Your task to perform on an android device: turn off smart reply in the gmail app Image 0: 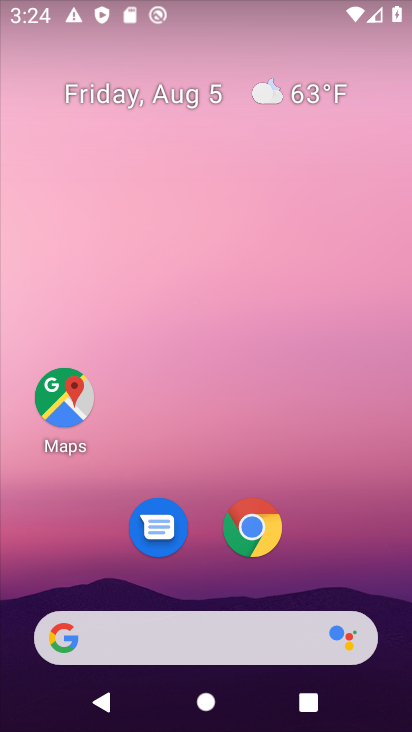
Step 0: drag from (213, 595) to (216, 172)
Your task to perform on an android device: turn off smart reply in the gmail app Image 1: 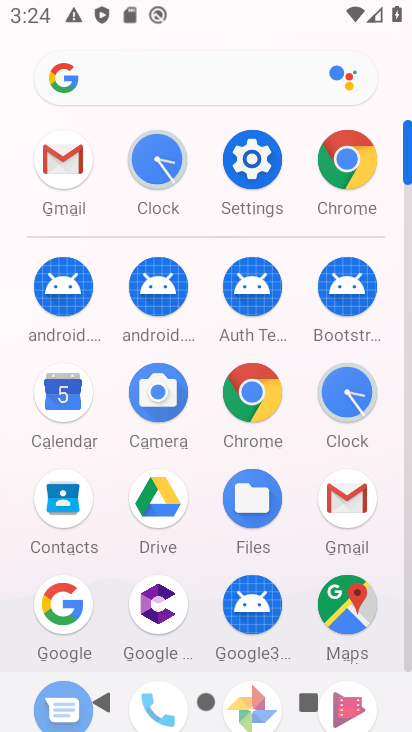
Step 1: click (343, 504)
Your task to perform on an android device: turn off smart reply in the gmail app Image 2: 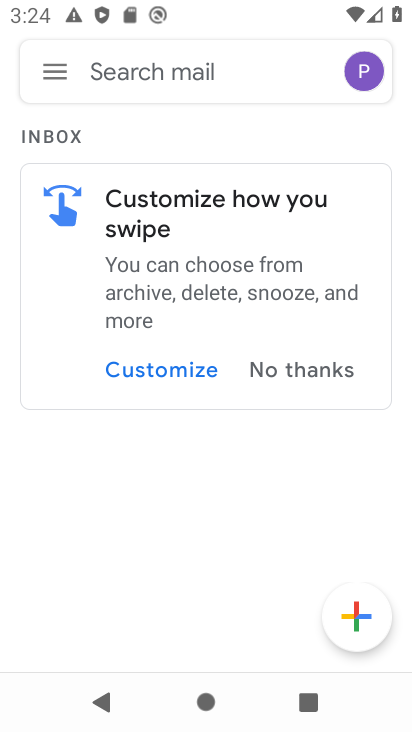
Step 2: click (58, 74)
Your task to perform on an android device: turn off smart reply in the gmail app Image 3: 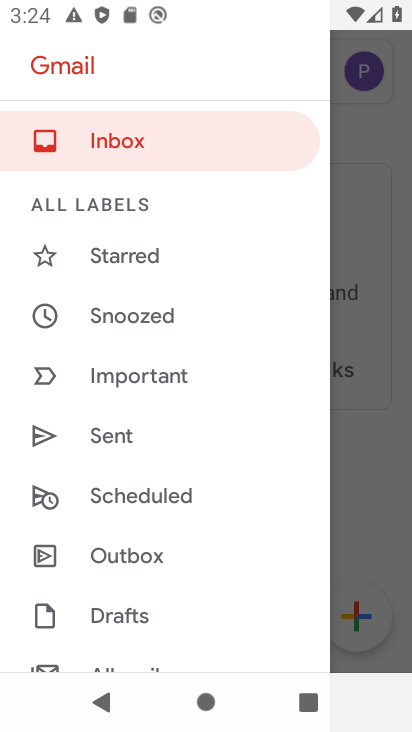
Step 3: drag from (166, 586) to (140, 236)
Your task to perform on an android device: turn off smart reply in the gmail app Image 4: 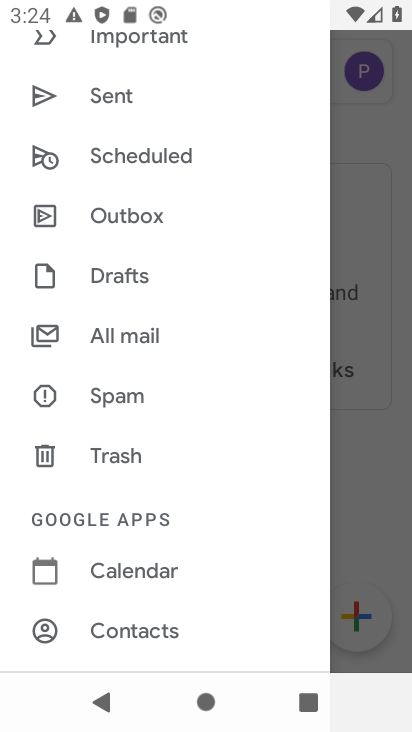
Step 4: drag from (170, 540) to (155, 328)
Your task to perform on an android device: turn off smart reply in the gmail app Image 5: 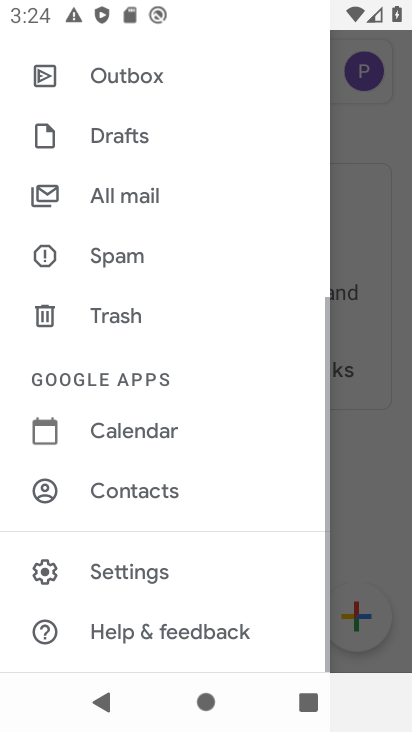
Step 5: click (140, 571)
Your task to perform on an android device: turn off smart reply in the gmail app Image 6: 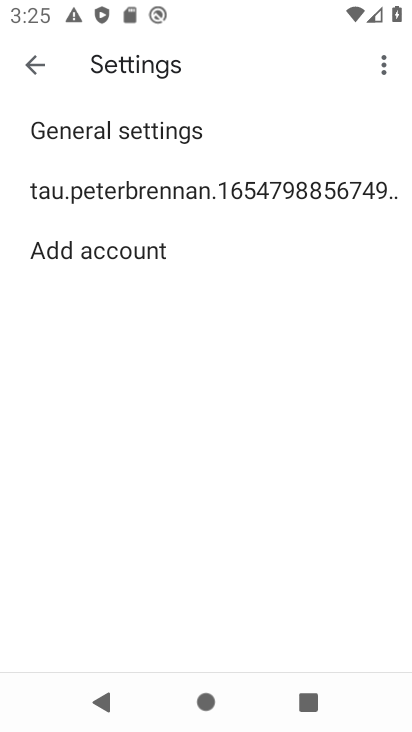
Step 6: click (131, 196)
Your task to perform on an android device: turn off smart reply in the gmail app Image 7: 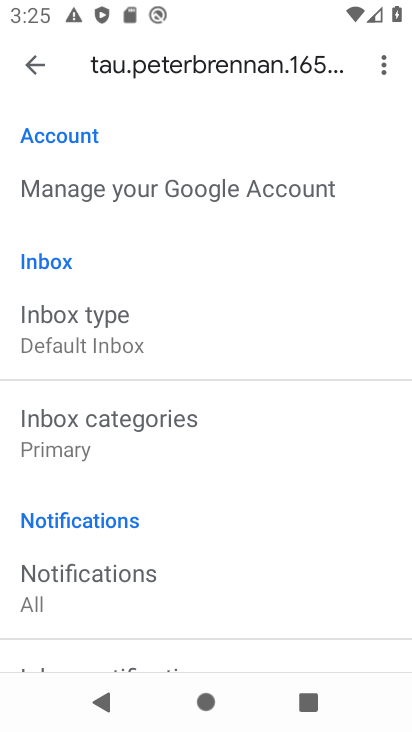
Step 7: drag from (137, 565) to (132, 365)
Your task to perform on an android device: turn off smart reply in the gmail app Image 8: 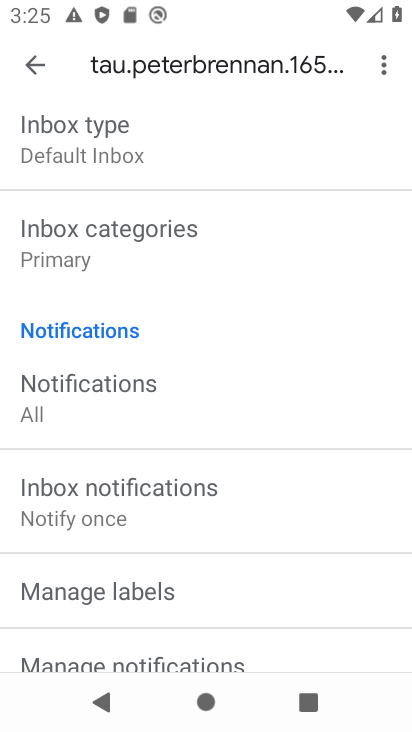
Step 8: drag from (132, 564) to (122, 413)
Your task to perform on an android device: turn off smart reply in the gmail app Image 9: 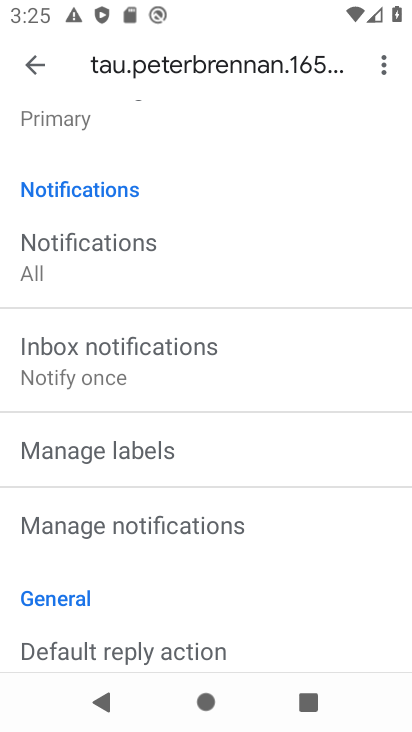
Step 9: drag from (150, 628) to (153, 347)
Your task to perform on an android device: turn off smart reply in the gmail app Image 10: 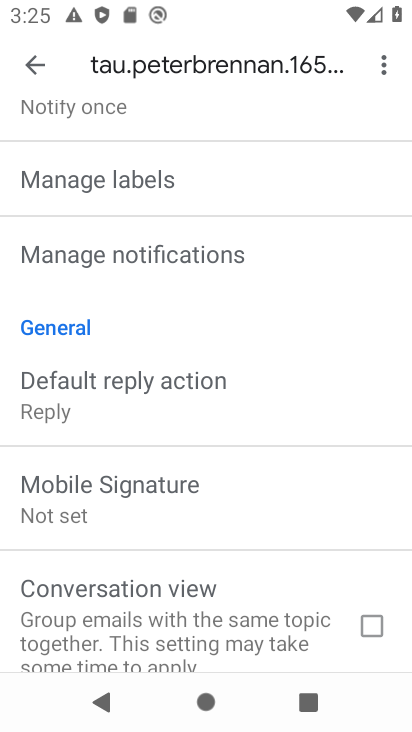
Step 10: drag from (171, 635) to (166, 327)
Your task to perform on an android device: turn off smart reply in the gmail app Image 11: 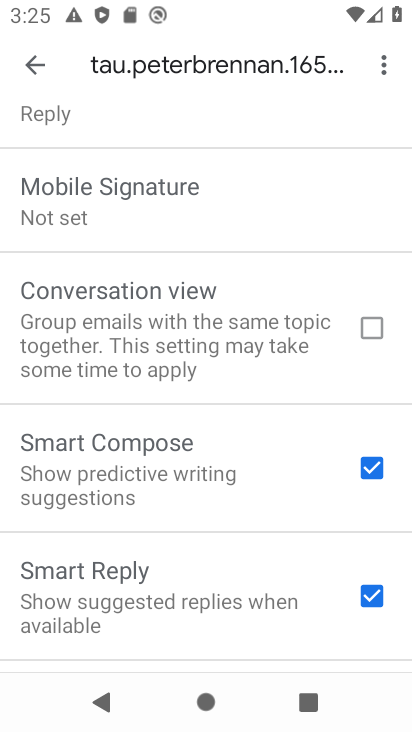
Step 11: click (379, 590)
Your task to perform on an android device: turn off smart reply in the gmail app Image 12: 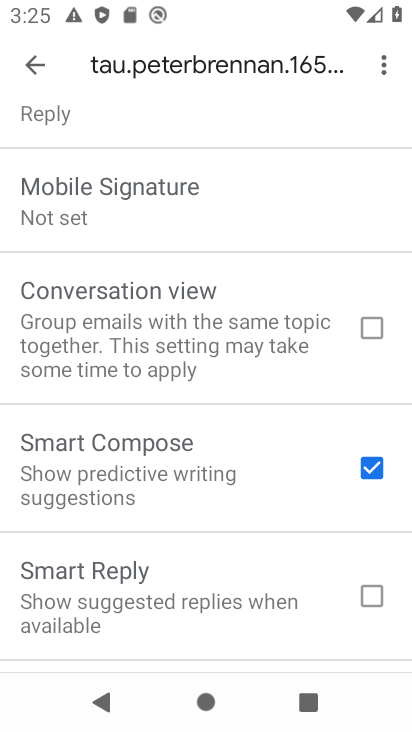
Step 12: task complete